Your task to perform on an android device: make emails show in primary in the gmail app Image 0: 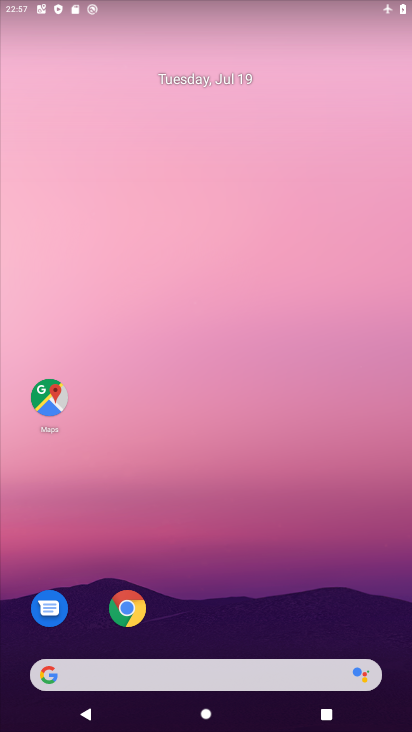
Step 0: drag from (332, 606) to (263, 23)
Your task to perform on an android device: make emails show in primary in the gmail app Image 1: 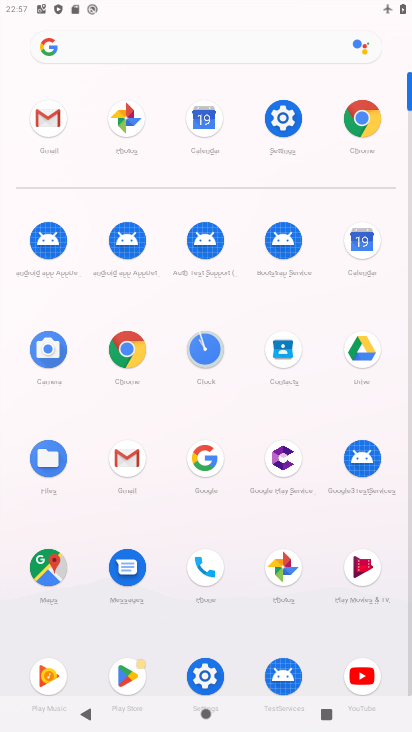
Step 1: click (58, 116)
Your task to perform on an android device: make emails show in primary in the gmail app Image 2: 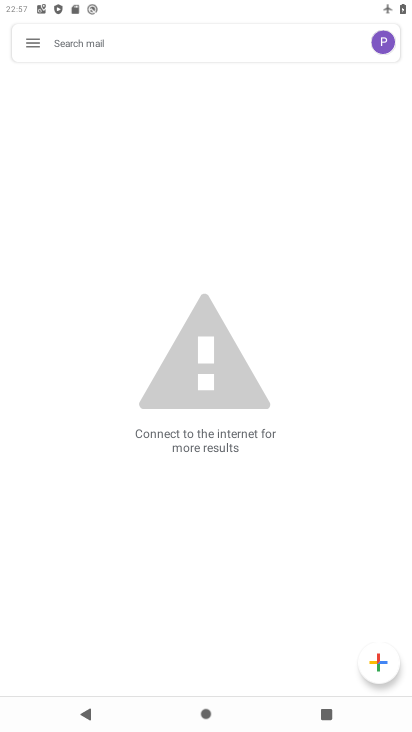
Step 2: click (33, 38)
Your task to perform on an android device: make emails show in primary in the gmail app Image 3: 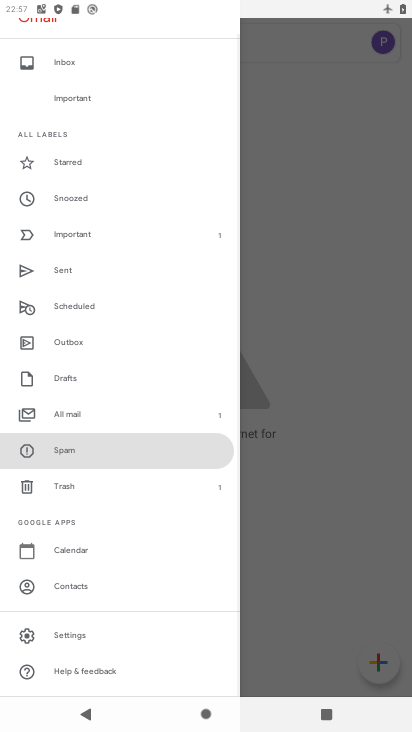
Step 3: click (71, 636)
Your task to perform on an android device: make emails show in primary in the gmail app Image 4: 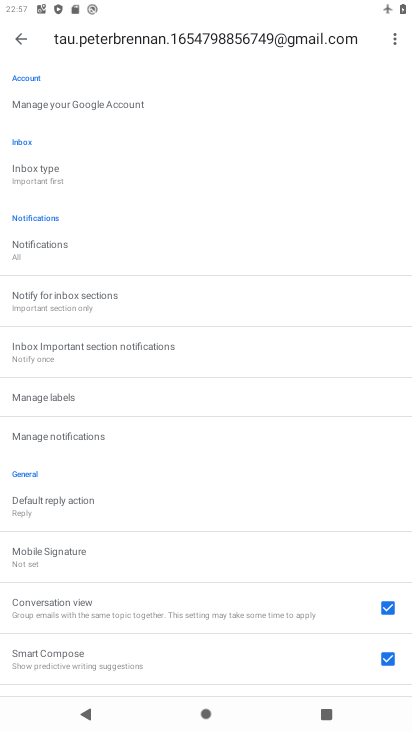
Step 4: click (52, 172)
Your task to perform on an android device: make emails show in primary in the gmail app Image 5: 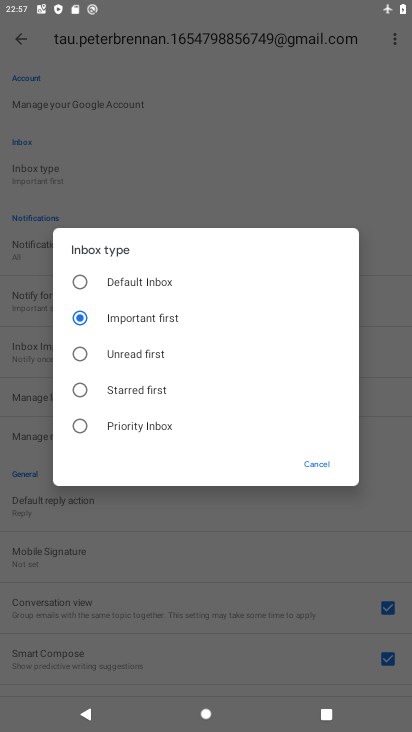
Step 5: click (137, 279)
Your task to perform on an android device: make emails show in primary in the gmail app Image 6: 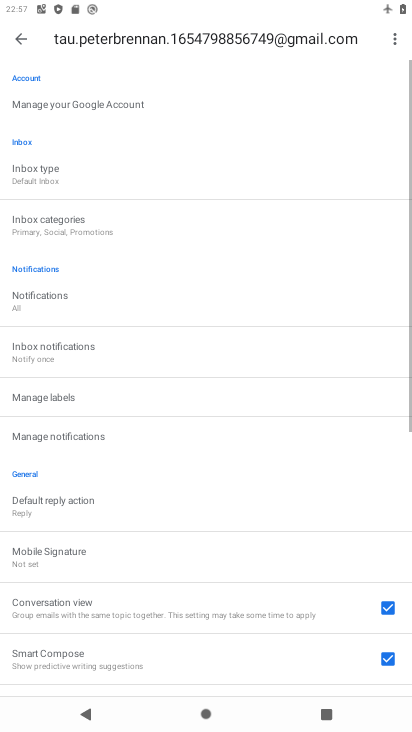
Step 6: click (107, 233)
Your task to perform on an android device: make emails show in primary in the gmail app Image 7: 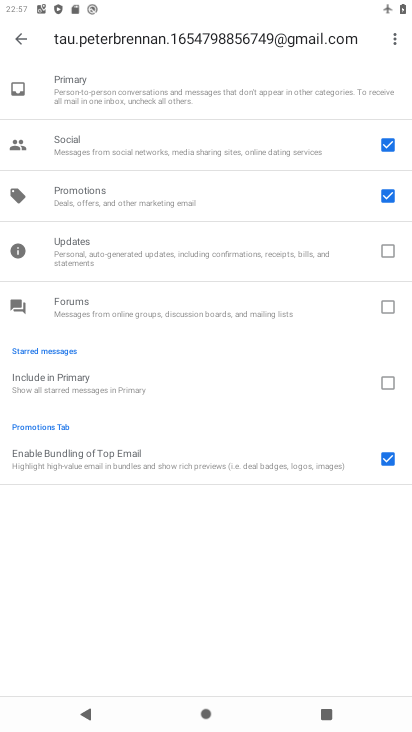
Step 7: task complete